Your task to perform on an android device: What is the news today? Image 0: 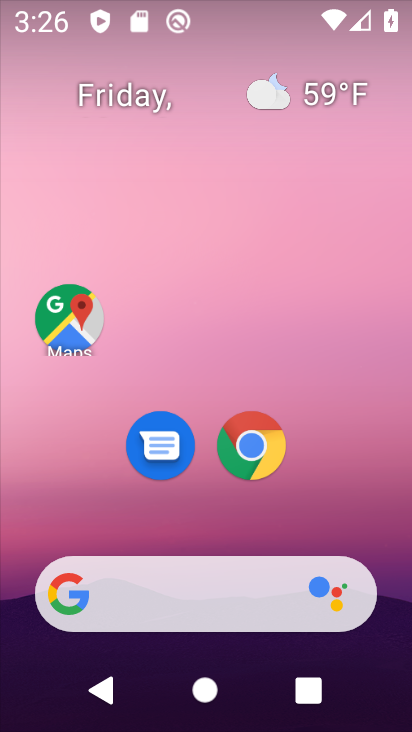
Step 0: drag from (20, 155) to (410, 269)
Your task to perform on an android device: What is the news today? Image 1: 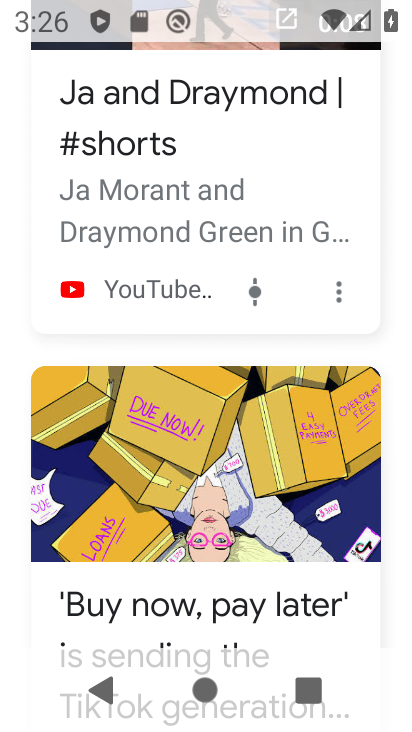
Step 1: task complete